Your task to perform on an android device: turn smart compose on in the gmail app Image 0: 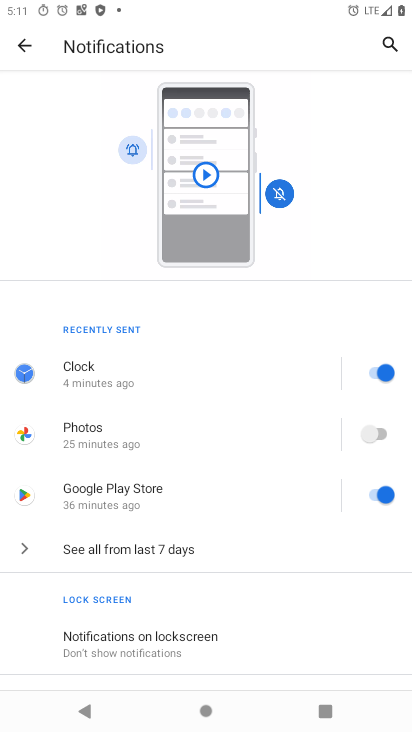
Step 0: press home button
Your task to perform on an android device: turn smart compose on in the gmail app Image 1: 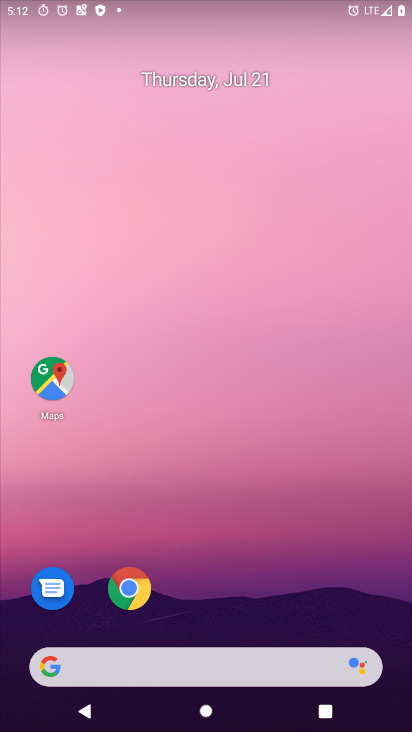
Step 1: drag from (298, 580) to (357, 61)
Your task to perform on an android device: turn smart compose on in the gmail app Image 2: 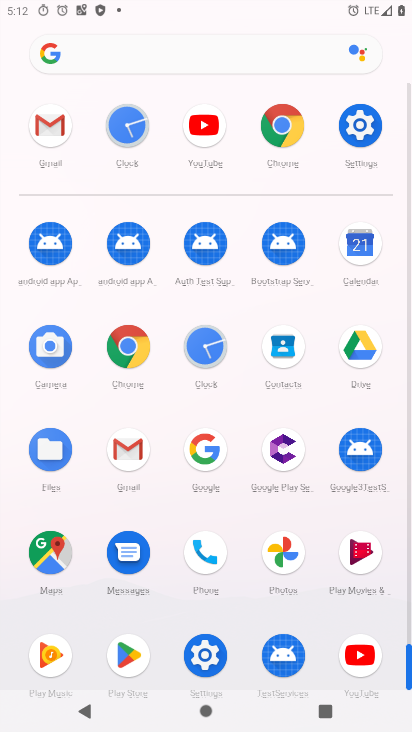
Step 2: click (140, 460)
Your task to perform on an android device: turn smart compose on in the gmail app Image 3: 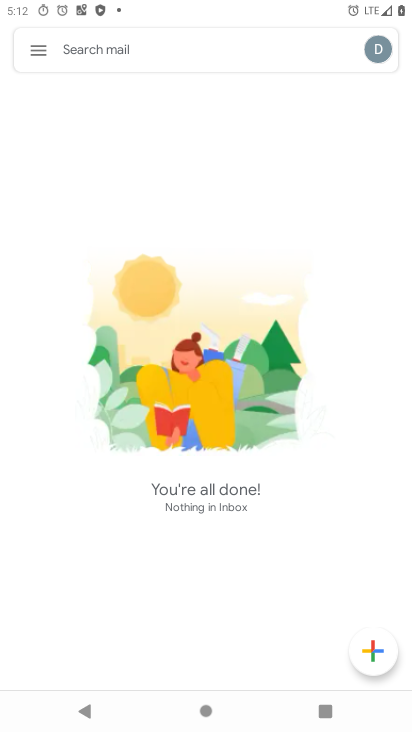
Step 3: click (32, 41)
Your task to perform on an android device: turn smart compose on in the gmail app Image 4: 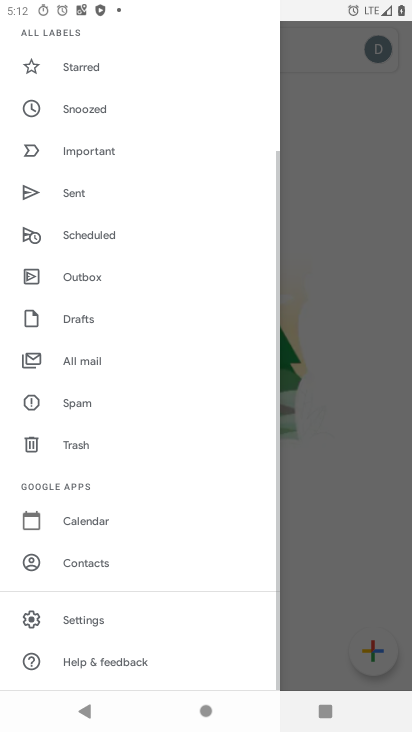
Step 4: drag from (153, 552) to (157, 237)
Your task to perform on an android device: turn smart compose on in the gmail app Image 5: 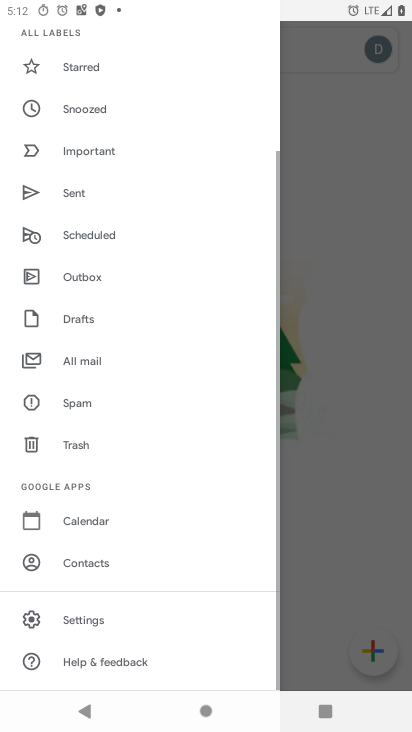
Step 5: click (100, 619)
Your task to perform on an android device: turn smart compose on in the gmail app Image 6: 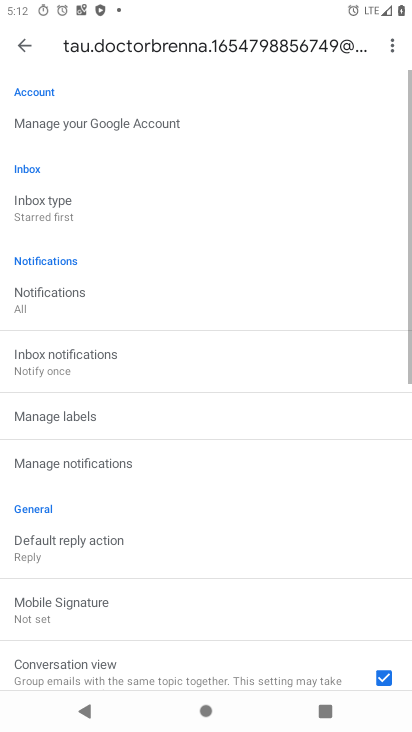
Step 6: drag from (226, 557) to (242, 278)
Your task to perform on an android device: turn smart compose on in the gmail app Image 7: 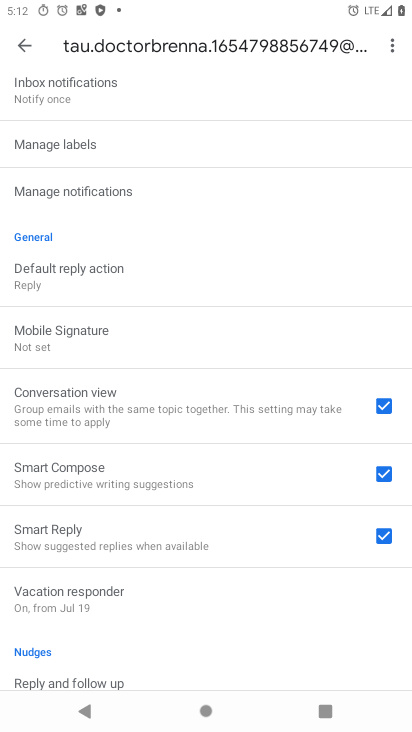
Step 7: click (338, 463)
Your task to perform on an android device: turn smart compose on in the gmail app Image 8: 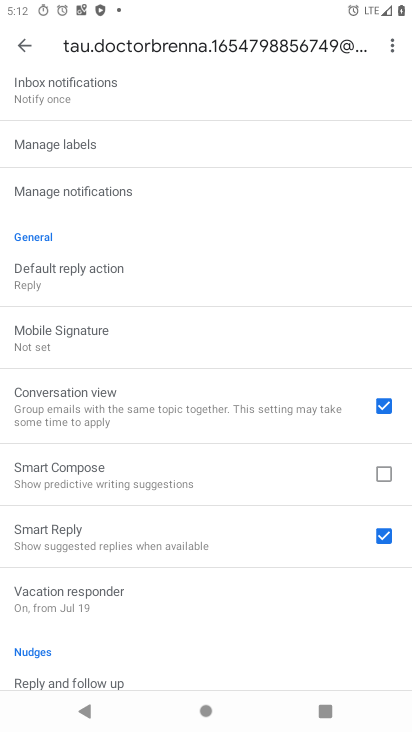
Step 8: task complete